Your task to perform on an android device: turn on sleep mode Image 0: 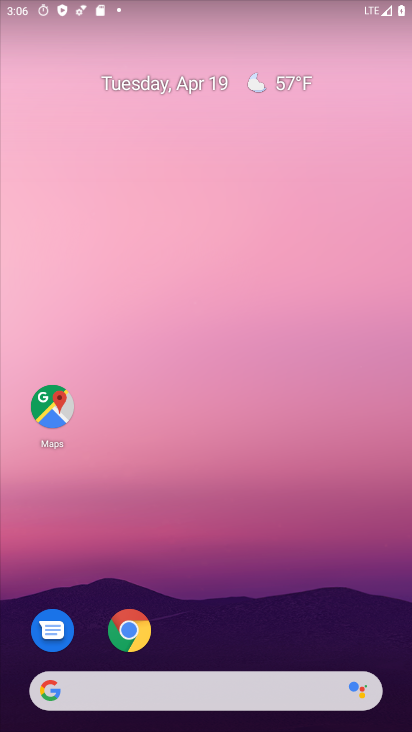
Step 0: drag from (236, 469) to (213, 57)
Your task to perform on an android device: turn on sleep mode Image 1: 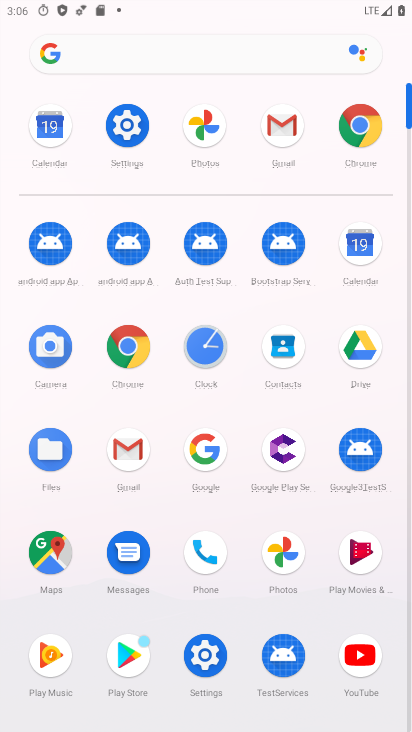
Step 1: click (127, 121)
Your task to perform on an android device: turn on sleep mode Image 2: 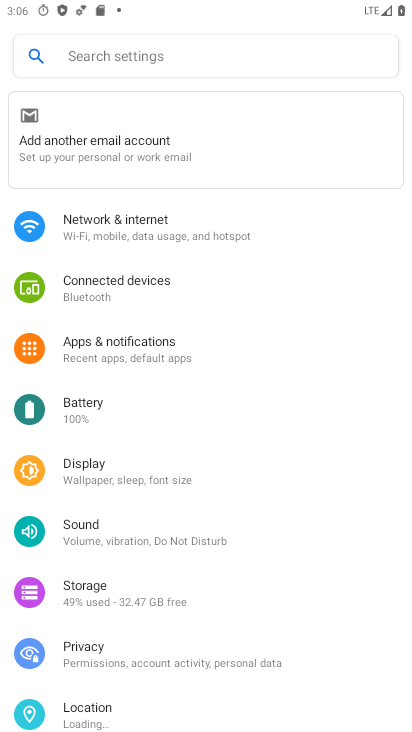
Step 2: click (123, 470)
Your task to perform on an android device: turn on sleep mode Image 3: 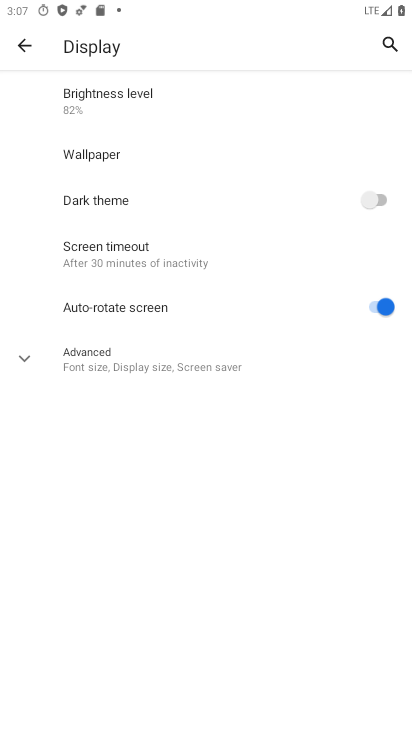
Step 3: task complete